Your task to perform on an android device: delete browsing data in the chrome app Image 0: 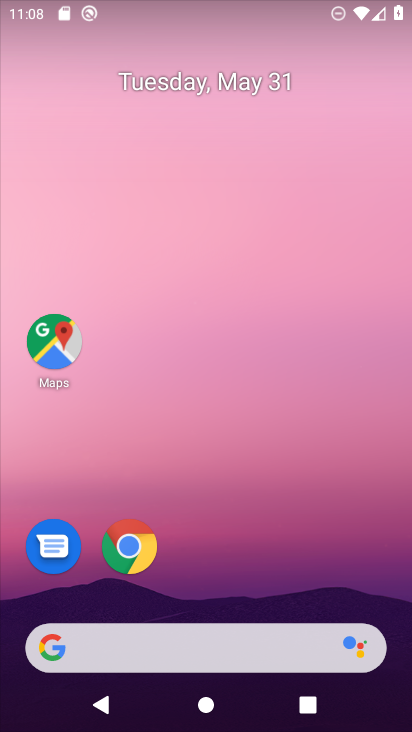
Step 0: drag from (340, 645) to (409, 405)
Your task to perform on an android device: delete browsing data in the chrome app Image 1: 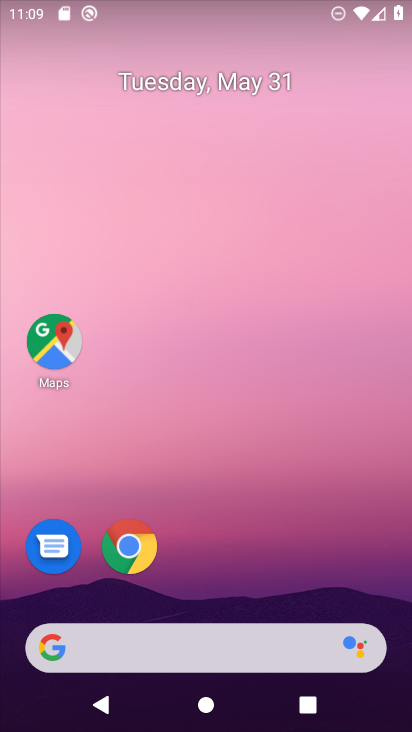
Step 1: drag from (203, 599) to (299, 39)
Your task to perform on an android device: delete browsing data in the chrome app Image 2: 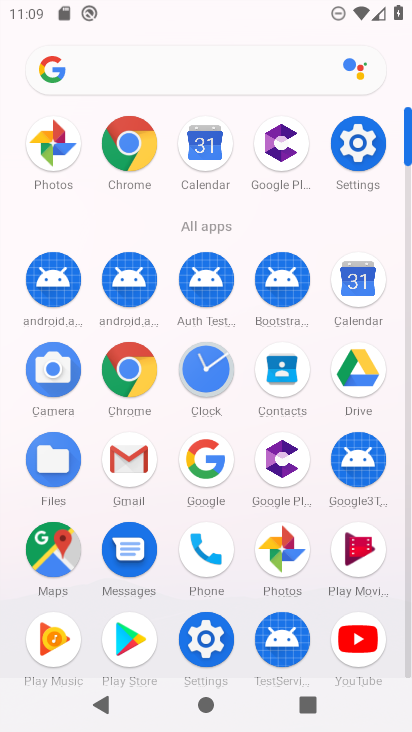
Step 2: click (127, 373)
Your task to perform on an android device: delete browsing data in the chrome app Image 3: 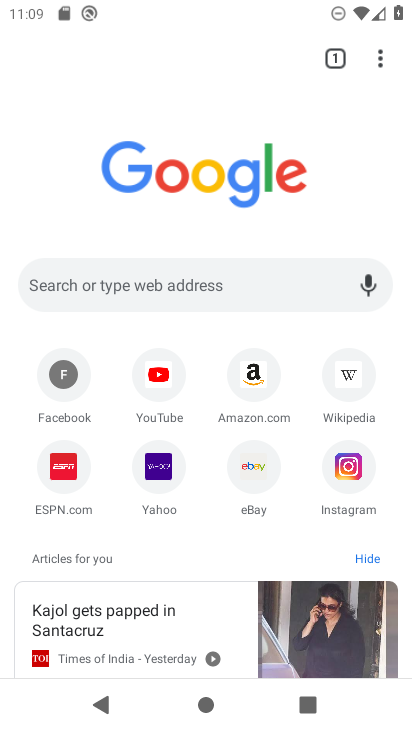
Step 3: task complete